Your task to perform on an android device: change your default location settings in chrome Image 0: 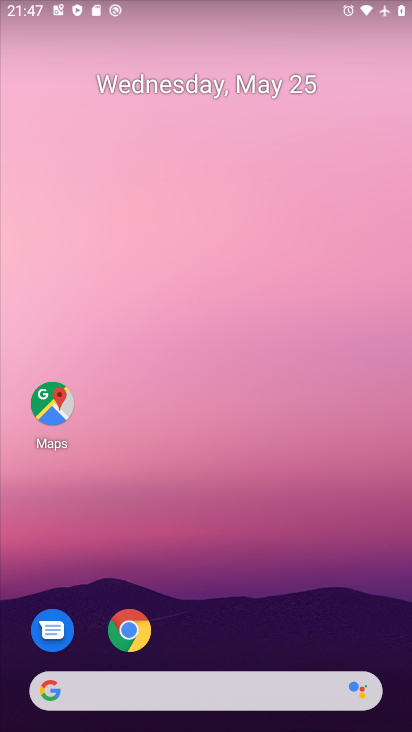
Step 0: click (115, 629)
Your task to perform on an android device: change your default location settings in chrome Image 1: 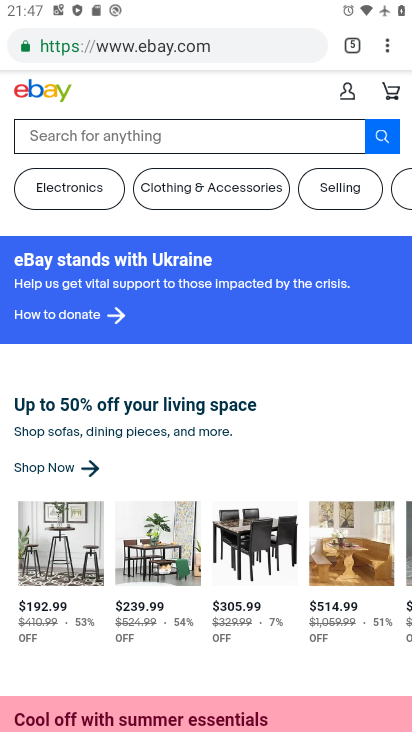
Step 1: click (384, 41)
Your task to perform on an android device: change your default location settings in chrome Image 2: 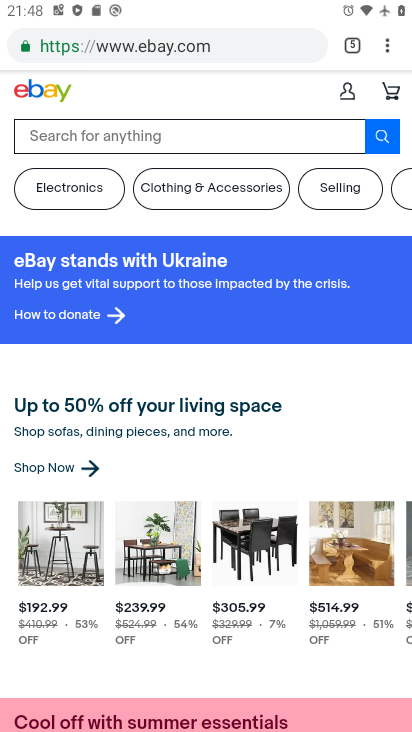
Step 2: click (379, 52)
Your task to perform on an android device: change your default location settings in chrome Image 3: 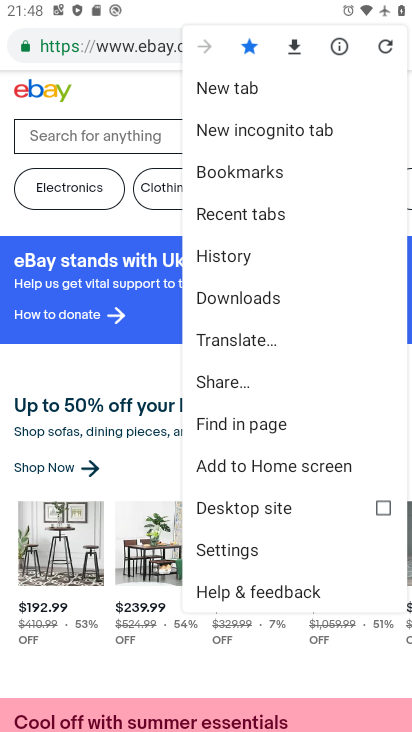
Step 3: click (250, 548)
Your task to perform on an android device: change your default location settings in chrome Image 4: 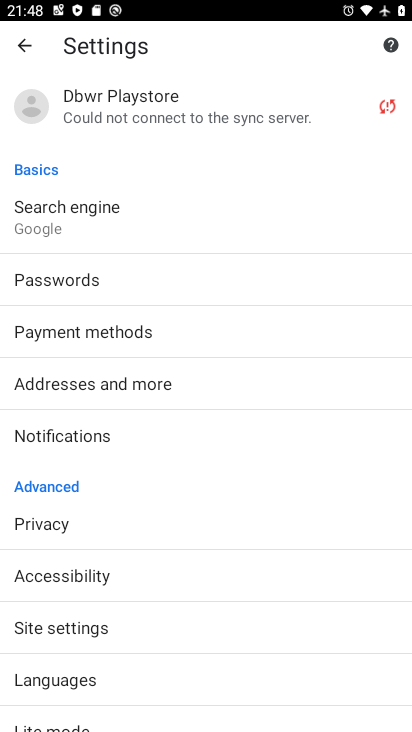
Step 4: drag from (120, 672) to (162, 442)
Your task to perform on an android device: change your default location settings in chrome Image 5: 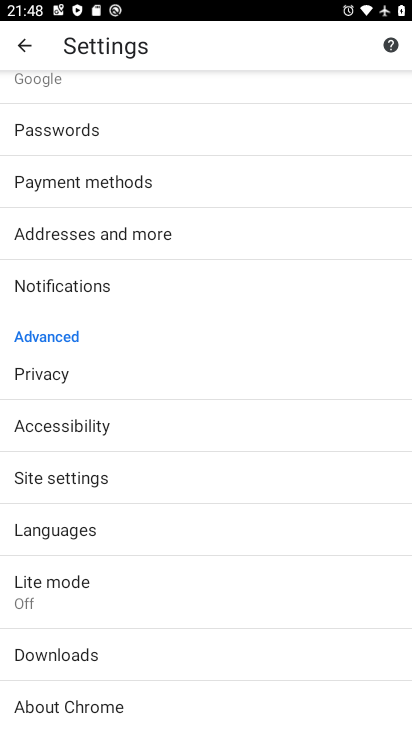
Step 5: click (111, 482)
Your task to perform on an android device: change your default location settings in chrome Image 6: 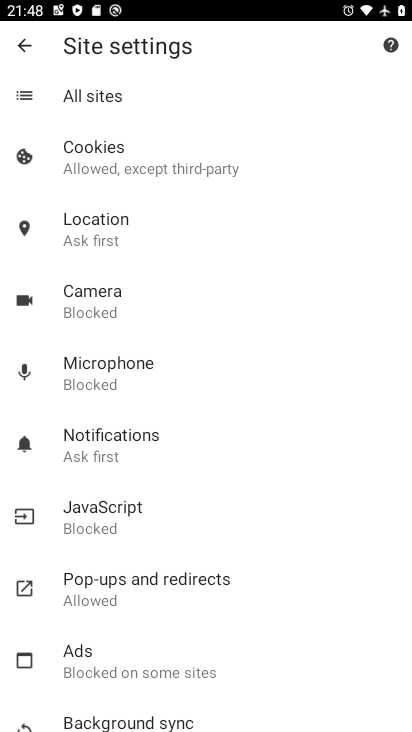
Step 6: click (122, 226)
Your task to perform on an android device: change your default location settings in chrome Image 7: 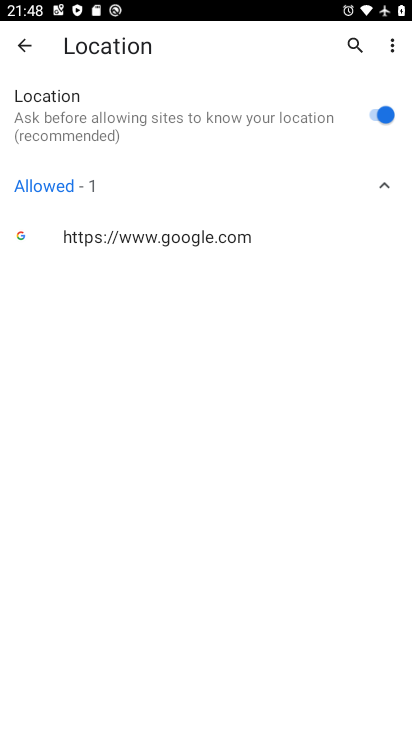
Step 7: click (366, 114)
Your task to perform on an android device: change your default location settings in chrome Image 8: 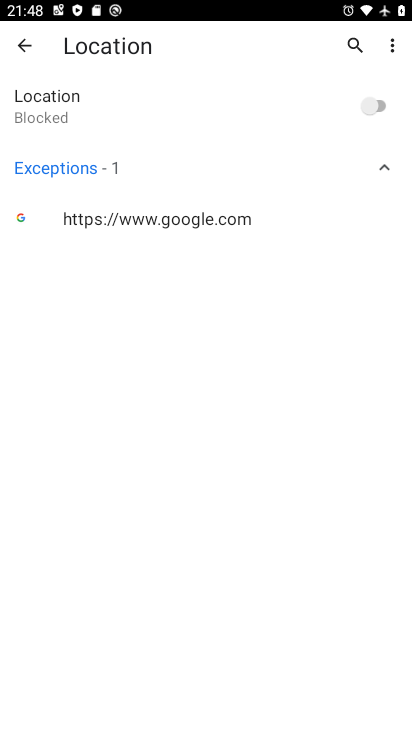
Step 8: task complete